Your task to perform on an android device: delete a single message in the gmail app Image 0: 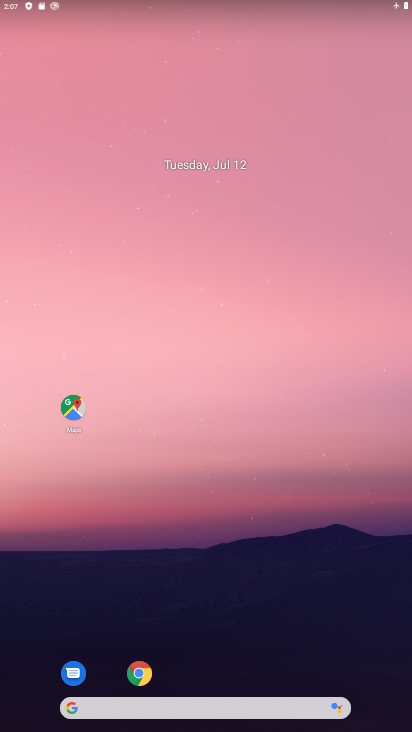
Step 0: drag from (268, 602) to (268, 242)
Your task to perform on an android device: delete a single message in the gmail app Image 1: 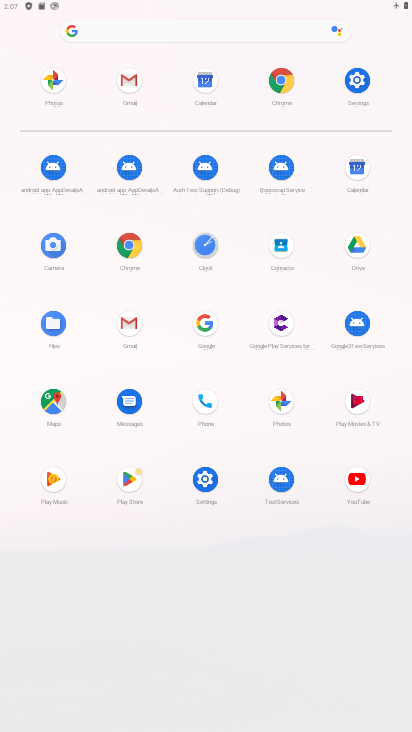
Step 1: click (124, 84)
Your task to perform on an android device: delete a single message in the gmail app Image 2: 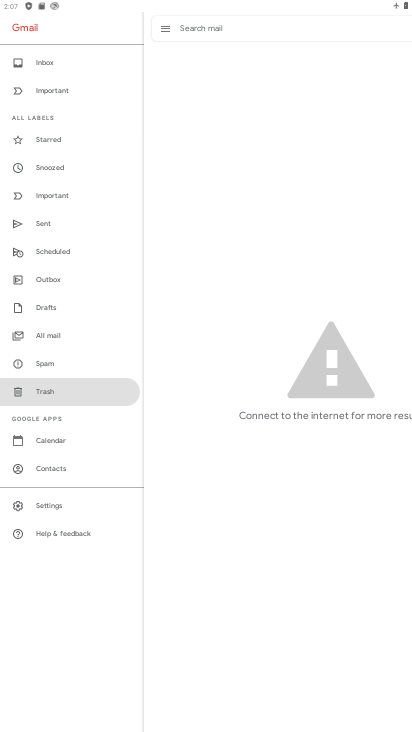
Step 2: click (77, 332)
Your task to perform on an android device: delete a single message in the gmail app Image 3: 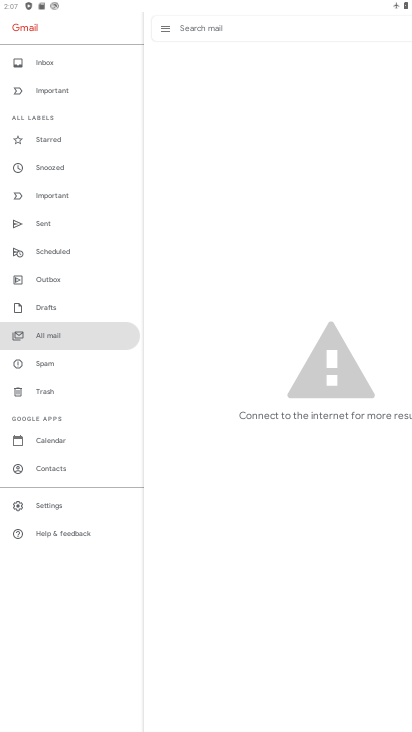
Step 3: task complete